Your task to perform on an android device: Open calendar and show me the third week of next month Image 0: 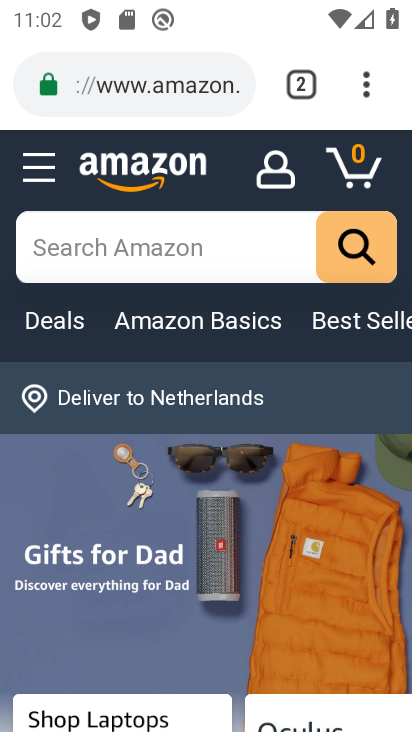
Step 0: press home button
Your task to perform on an android device: Open calendar and show me the third week of next month Image 1: 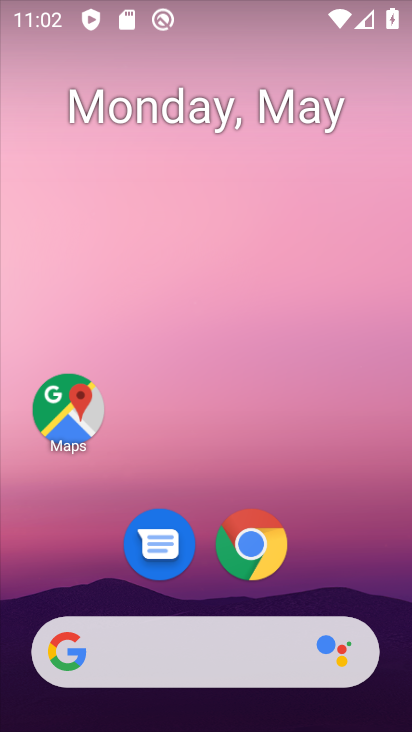
Step 1: drag from (76, 624) to (223, 132)
Your task to perform on an android device: Open calendar and show me the third week of next month Image 2: 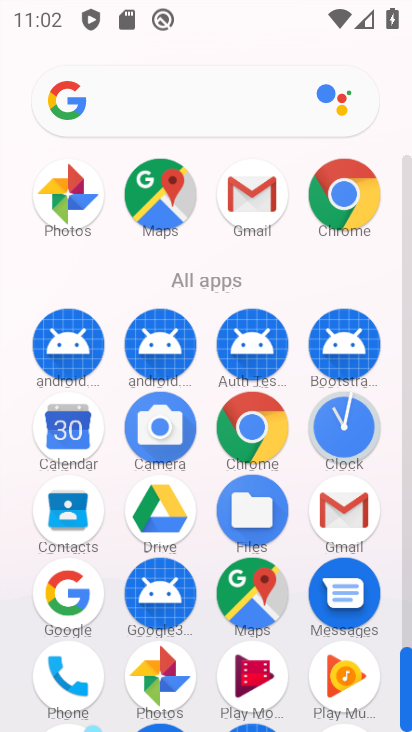
Step 2: click (49, 433)
Your task to perform on an android device: Open calendar and show me the third week of next month Image 3: 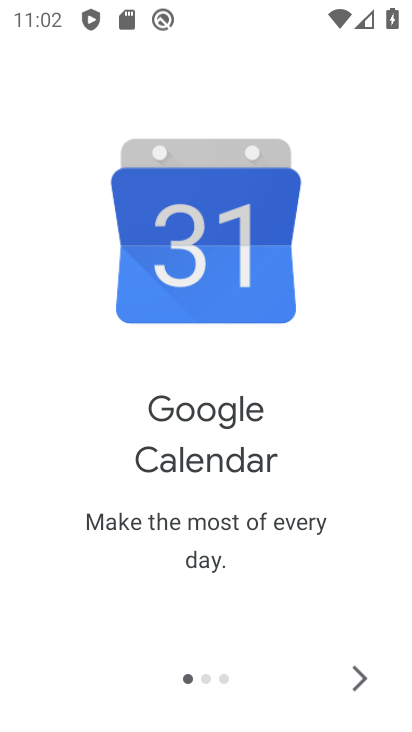
Step 3: click (347, 686)
Your task to perform on an android device: Open calendar and show me the third week of next month Image 4: 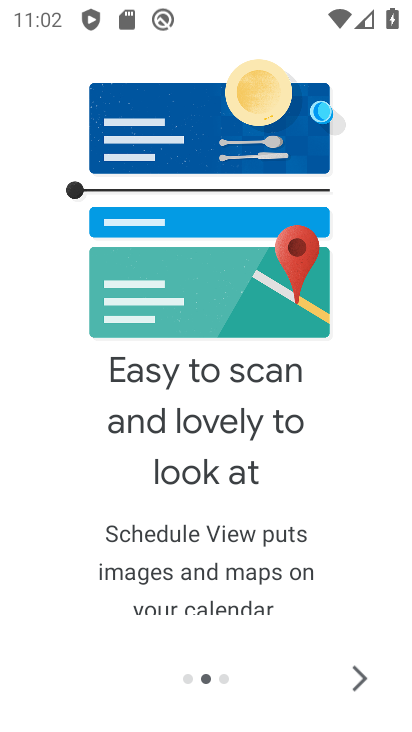
Step 4: click (354, 685)
Your task to perform on an android device: Open calendar and show me the third week of next month Image 5: 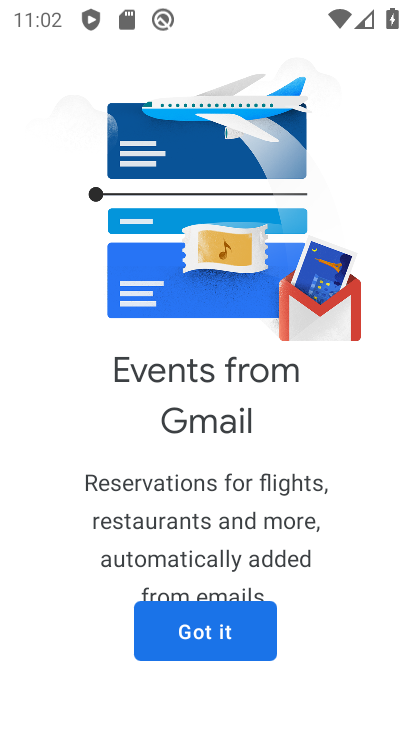
Step 5: click (237, 643)
Your task to perform on an android device: Open calendar and show me the third week of next month Image 6: 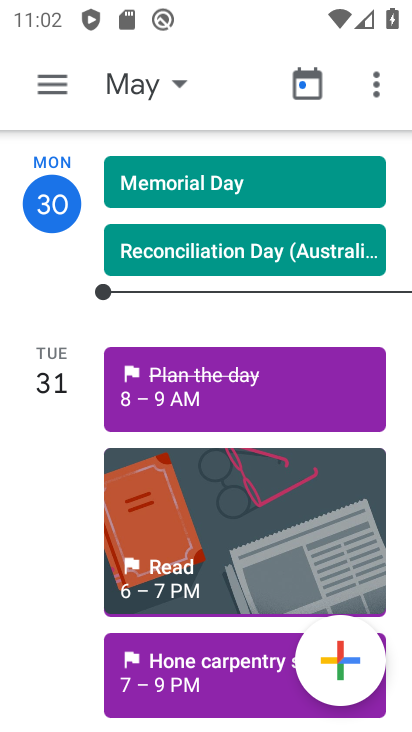
Step 6: click (141, 98)
Your task to perform on an android device: Open calendar and show me the third week of next month Image 7: 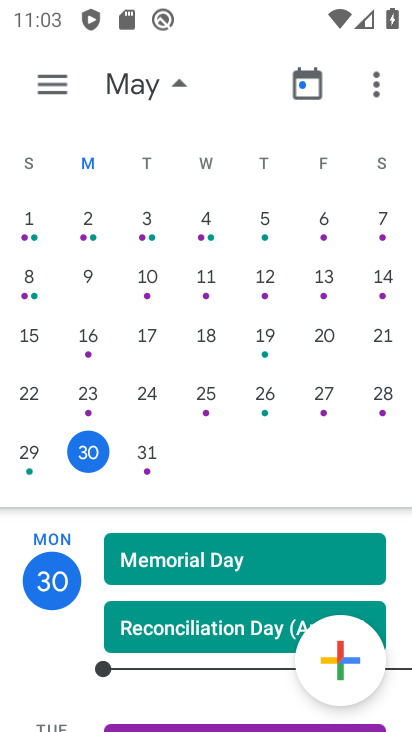
Step 7: drag from (342, 443) to (1, 413)
Your task to perform on an android device: Open calendar and show me the third week of next month Image 8: 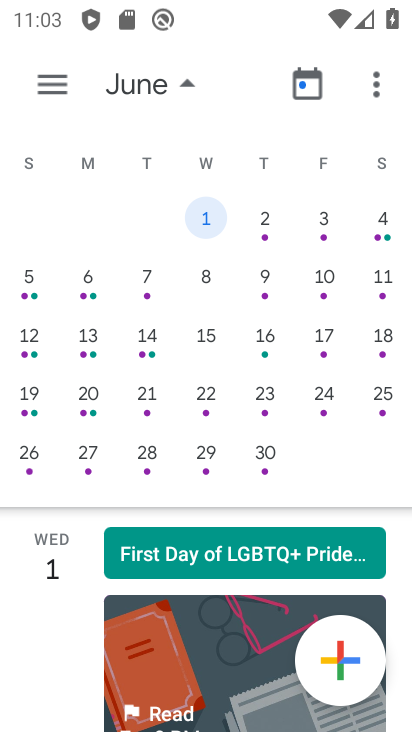
Step 8: click (32, 405)
Your task to perform on an android device: Open calendar and show me the third week of next month Image 9: 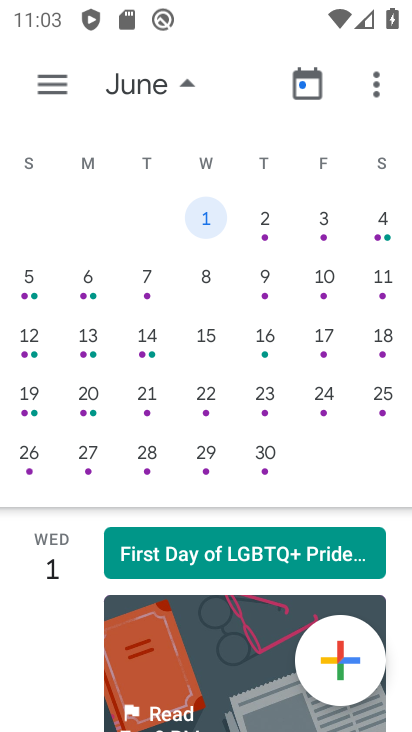
Step 9: click (36, 395)
Your task to perform on an android device: Open calendar and show me the third week of next month Image 10: 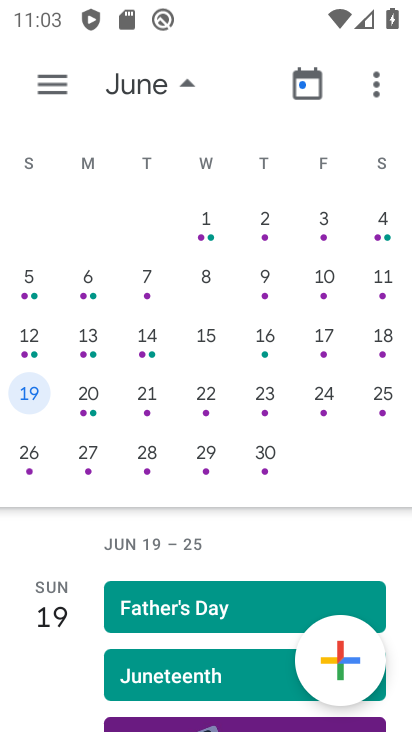
Step 10: click (66, 90)
Your task to perform on an android device: Open calendar and show me the third week of next month Image 11: 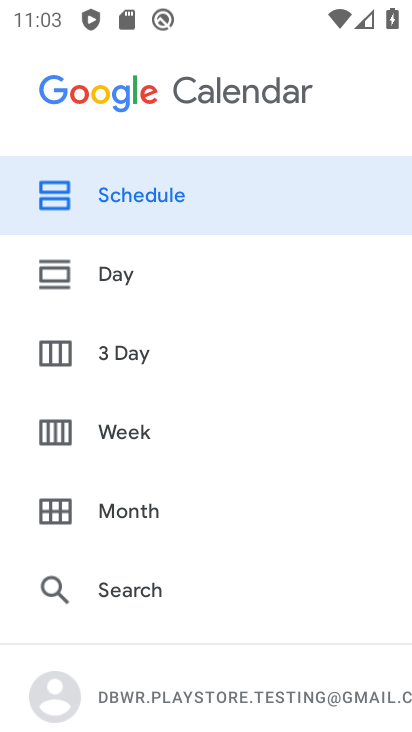
Step 11: click (162, 440)
Your task to perform on an android device: Open calendar and show me the third week of next month Image 12: 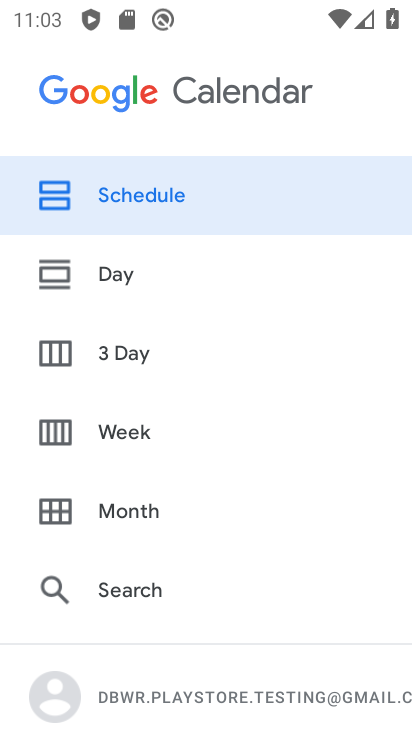
Step 12: click (164, 426)
Your task to perform on an android device: Open calendar and show me the third week of next month Image 13: 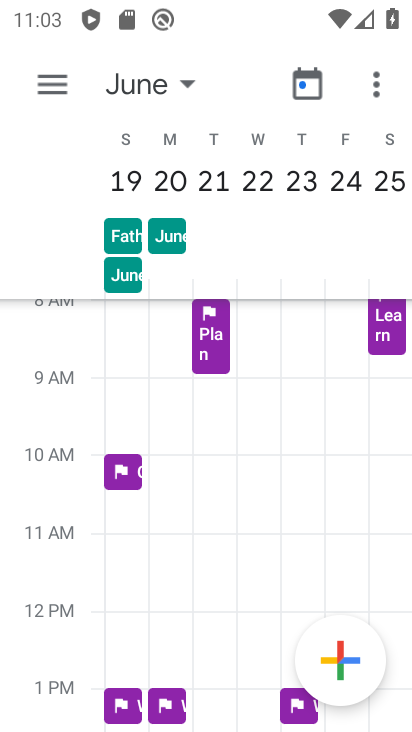
Step 13: task complete